Your task to perform on an android device: open wifi settings Image 0: 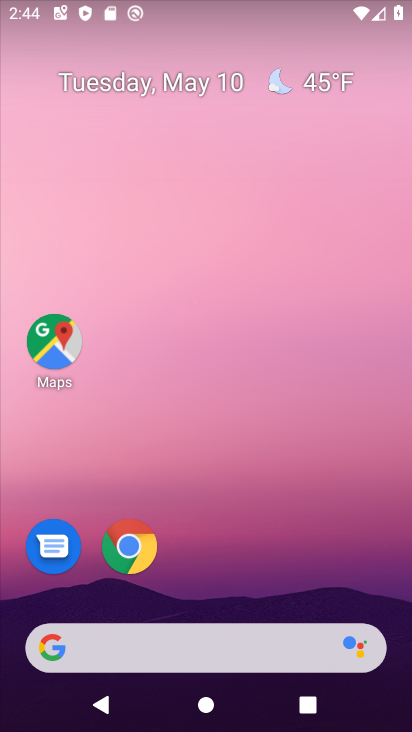
Step 0: drag from (233, 514) to (138, 0)
Your task to perform on an android device: open wifi settings Image 1: 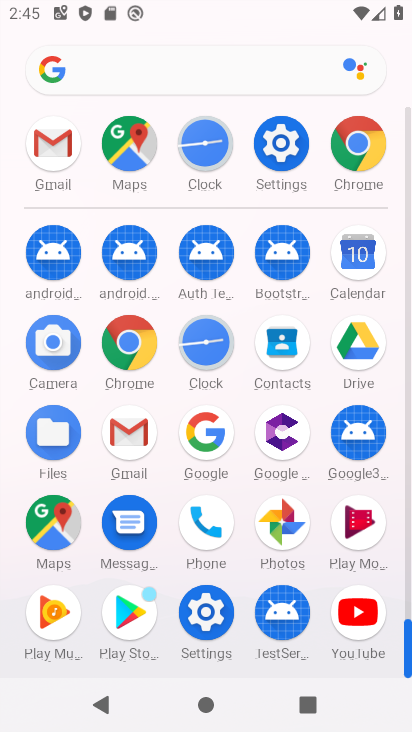
Step 1: click (278, 137)
Your task to perform on an android device: open wifi settings Image 2: 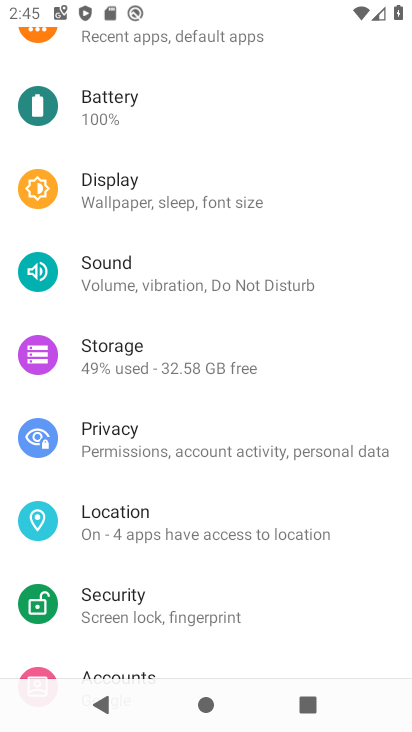
Step 2: drag from (278, 138) to (237, 614)
Your task to perform on an android device: open wifi settings Image 3: 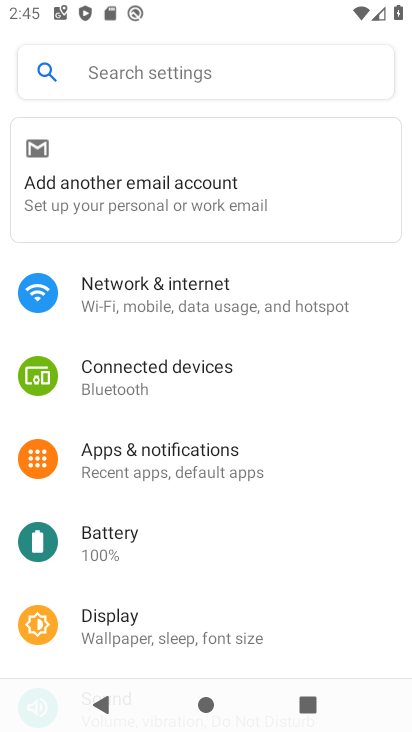
Step 3: click (175, 294)
Your task to perform on an android device: open wifi settings Image 4: 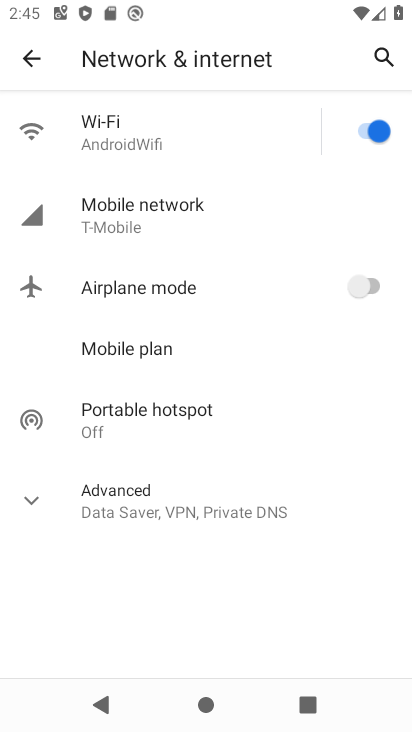
Step 4: click (180, 130)
Your task to perform on an android device: open wifi settings Image 5: 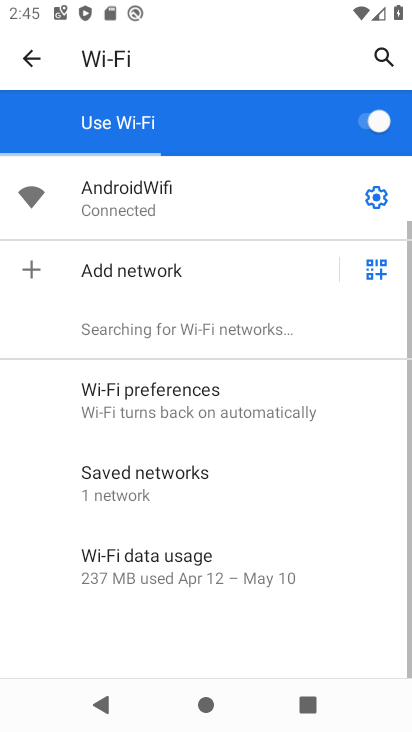
Step 5: task complete